Your task to perform on an android device: open app "Facebook Lite" (install if not already installed), go to login, and select forgot password Image 0: 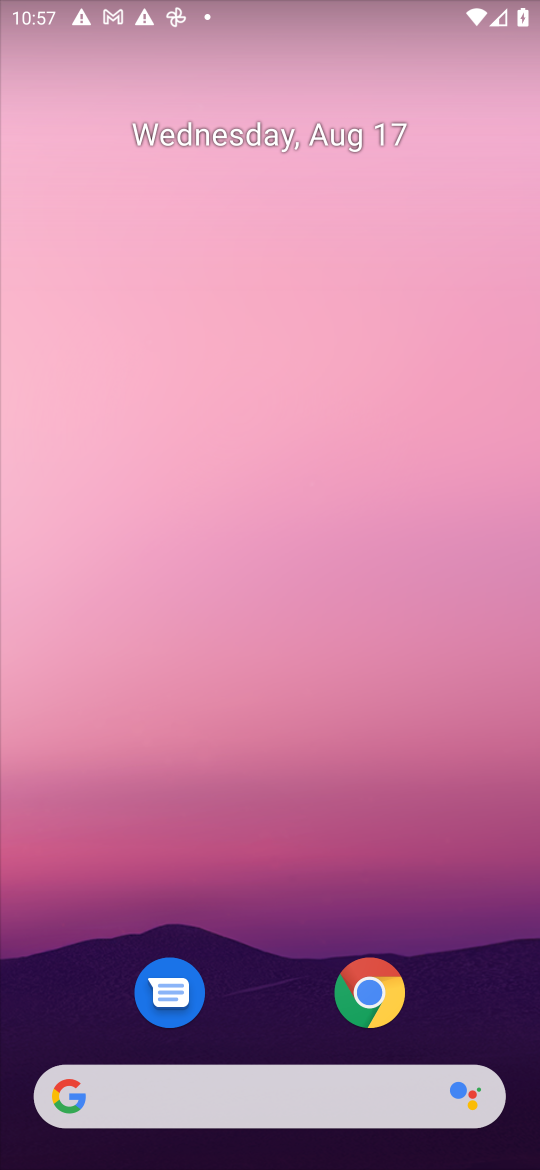
Step 0: drag from (437, 752) to (312, 49)
Your task to perform on an android device: open app "Facebook Lite" (install if not already installed), go to login, and select forgot password Image 1: 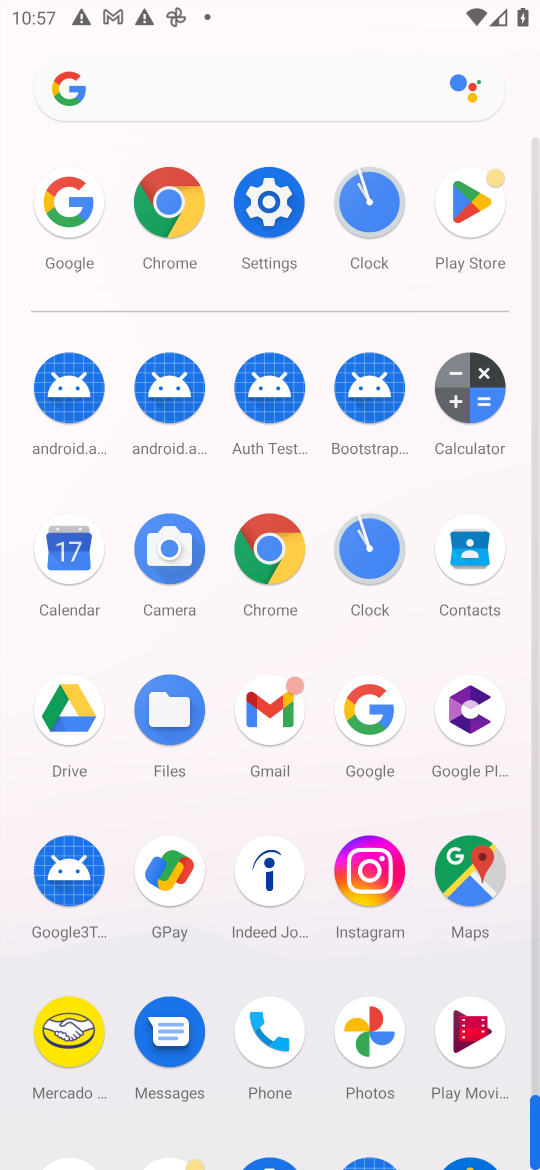
Step 1: click (450, 207)
Your task to perform on an android device: open app "Facebook Lite" (install if not already installed), go to login, and select forgot password Image 2: 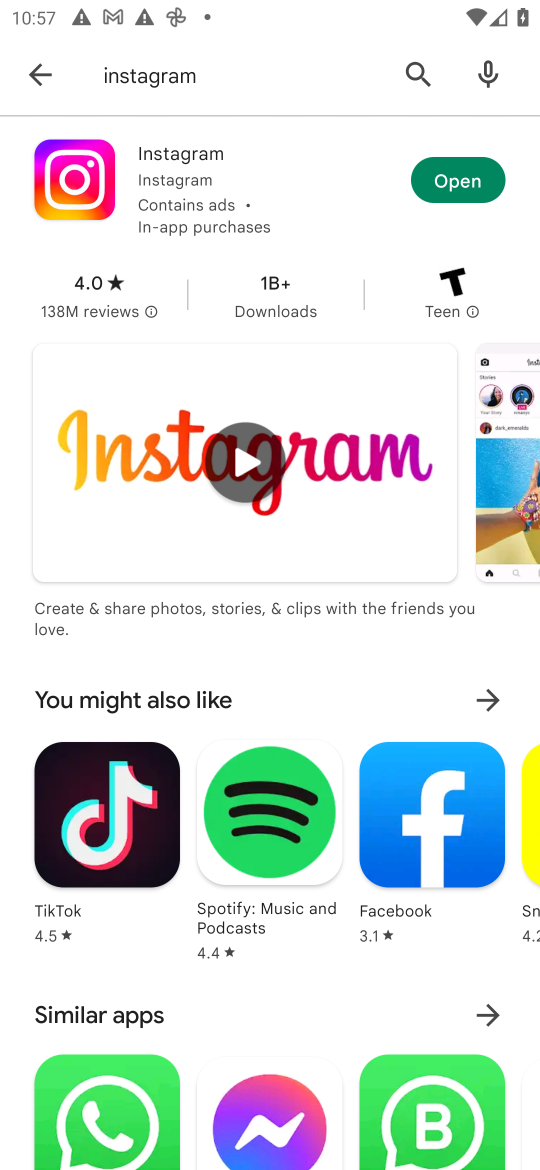
Step 2: press back button
Your task to perform on an android device: open app "Facebook Lite" (install if not already installed), go to login, and select forgot password Image 3: 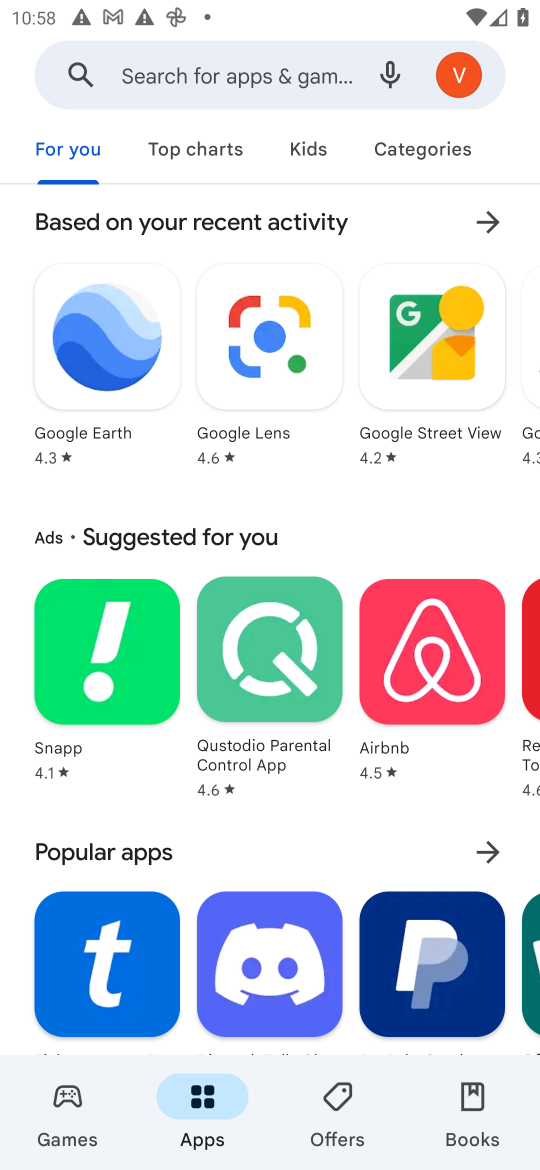
Step 3: click (219, 73)
Your task to perform on an android device: open app "Facebook Lite" (install if not already installed), go to login, and select forgot password Image 4: 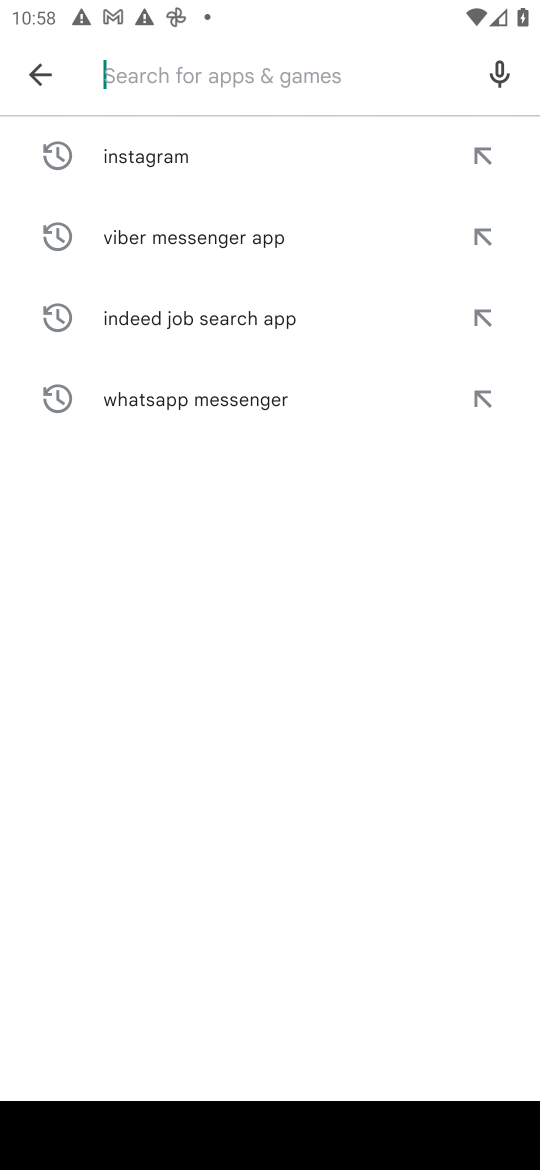
Step 4: type "Facebook Lite"
Your task to perform on an android device: open app "Facebook Lite" (install if not already installed), go to login, and select forgot password Image 5: 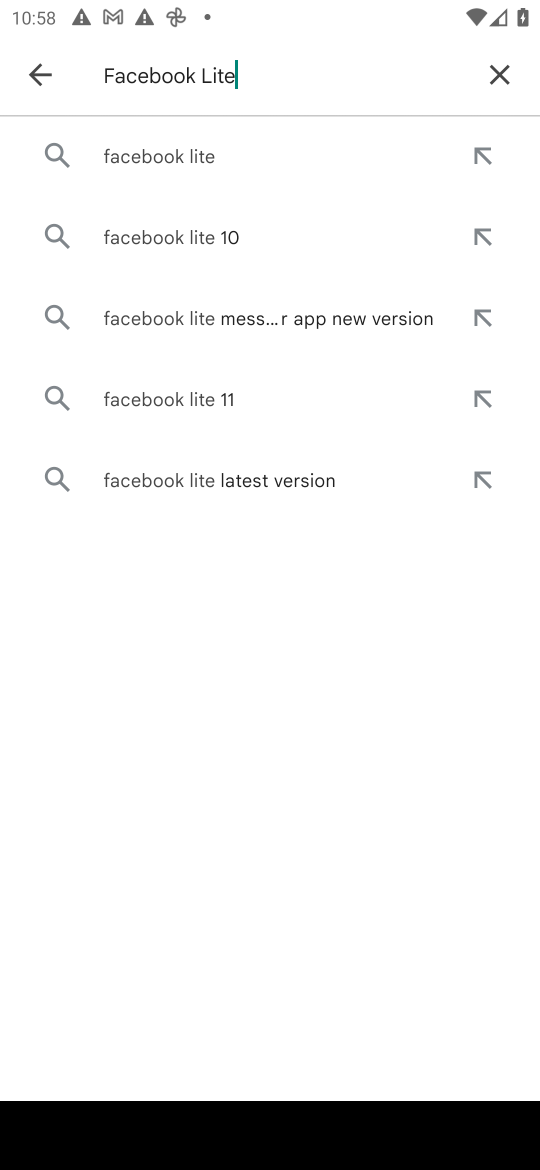
Step 5: click (152, 150)
Your task to perform on an android device: open app "Facebook Lite" (install if not already installed), go to login, and select forgot password Image 6: 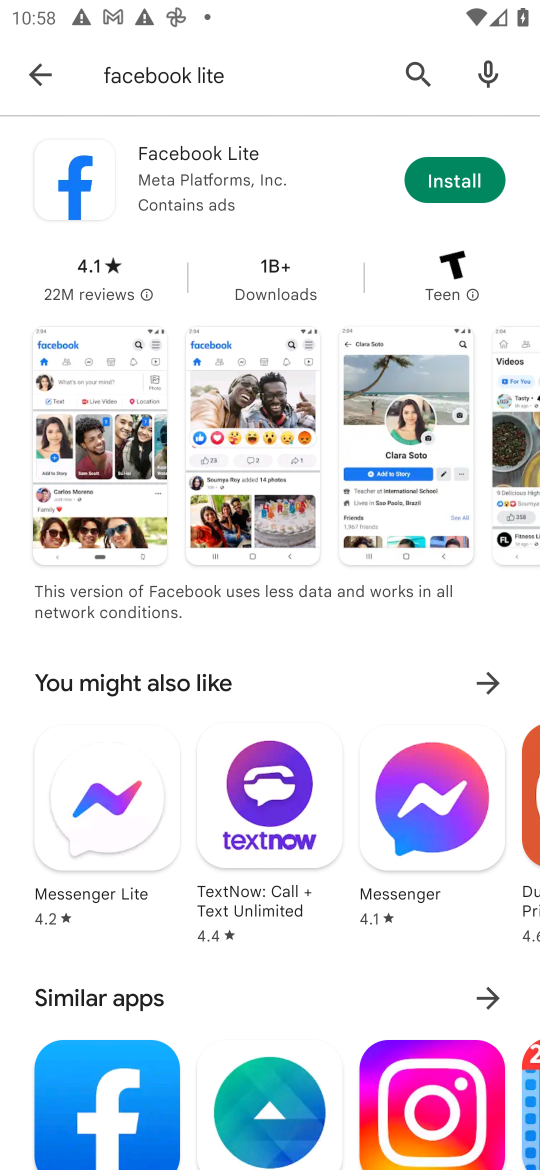
Step 6: task complete